Your task to perform on an android device: remove spam from my inbox in the gmail app Image 0: 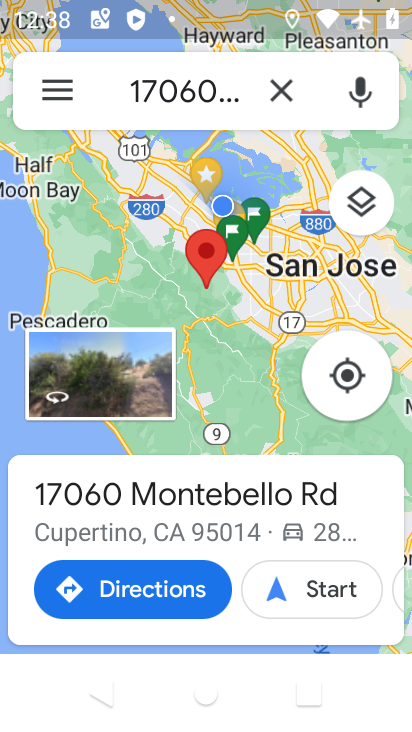
Step 0: press home button
Your task to perform on an android device: remove spam from my inbox in the gmail app Image 1: 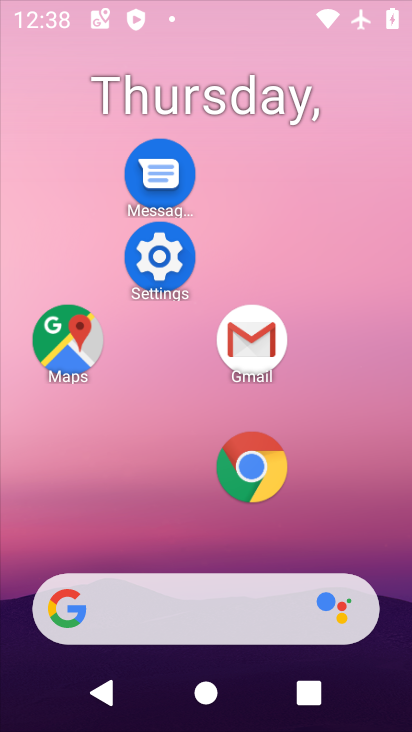
Step 1: drag from (195, 538) to (278, 207)
Your task to perform on an android device: remove spam from my inbox in the gmail app Image 2: 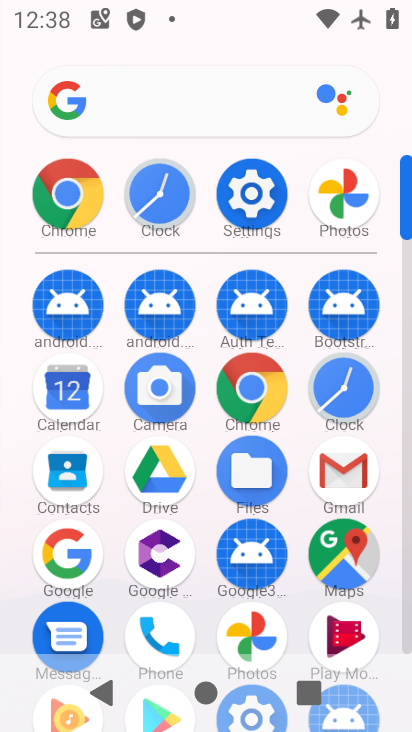
Step 2: drag from (203, 559) to (253, 181)
Your task to perform on an android device: remove spam from my inbox in the gmail app Image 3: 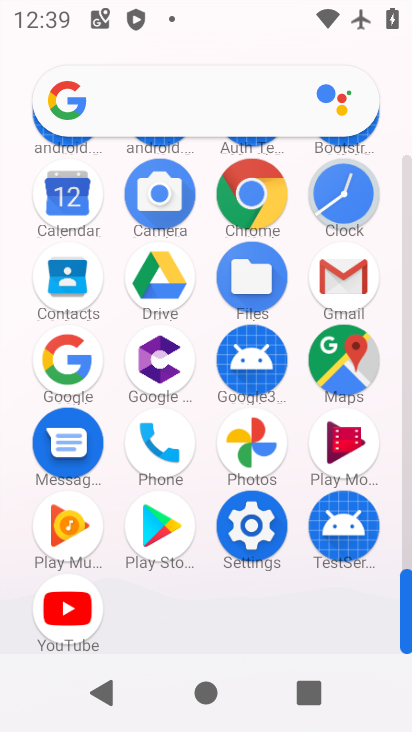
Step 3: click (351, 404)
Your task to perform on an android device: remove spam from my inbox in the gmail app Image 4: 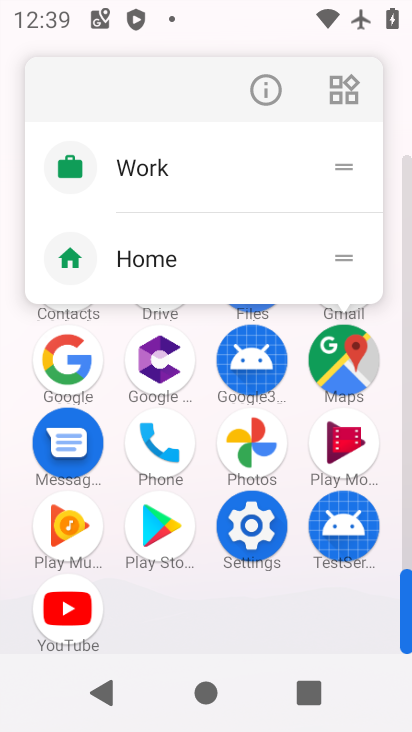
Step 4: click (282, 88)
Your task to perform on an android device: remove spam from my inbox in the gmail app Image 5: 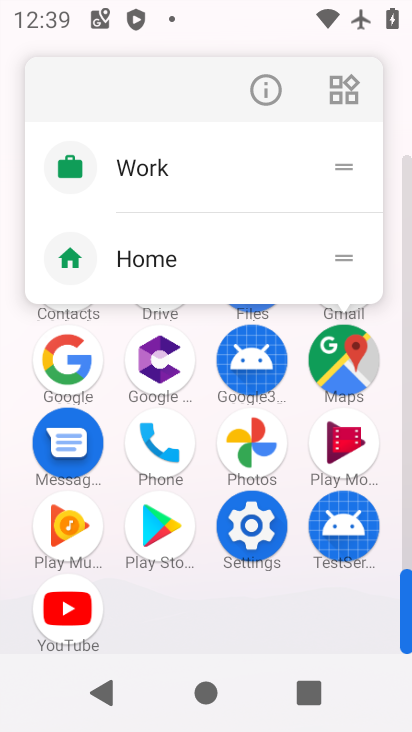
Step 5: click (282, 88)
Your task to perform on an android device: remove spam from my inbox in the gmail app Image 6: 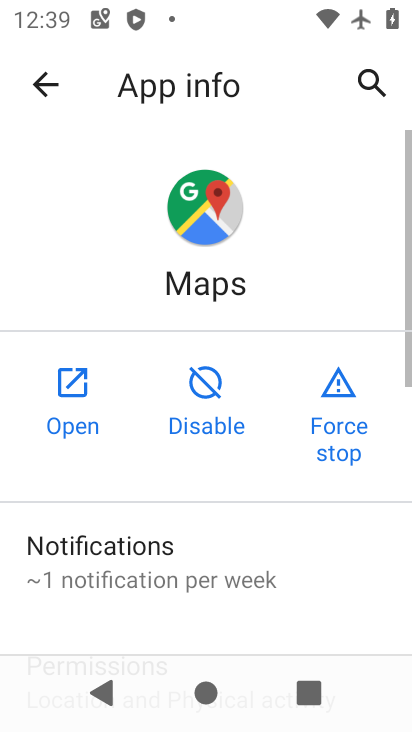
Step 6: click (67, 388)
Your task to perform on an android device: remove spam from my inbox in the gmail app Image 7: 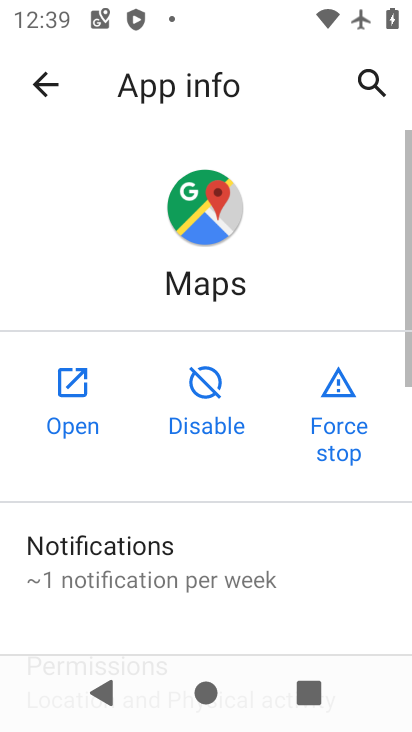
Step 7: click (67, 388)
Your task to perform on an android device: remove spam from my inbox in the gmail app Image 8: 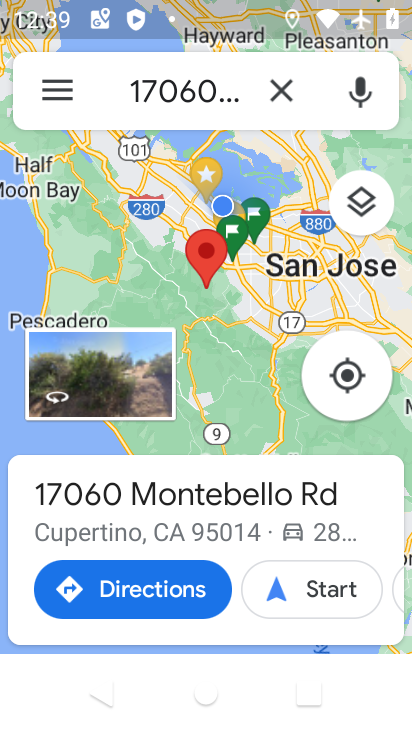
Step 8: drag from (224, 452) to (308, 166)
Your task to perform on an android device: remove spam from my inbox in the gmail app Image 9: 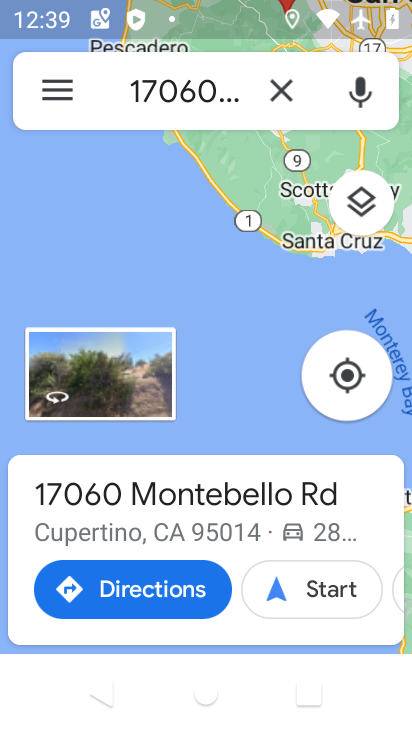
Step 9: press home button
Your task to perform on an android device: remove spam from my inbox in the gmail app Image 10: 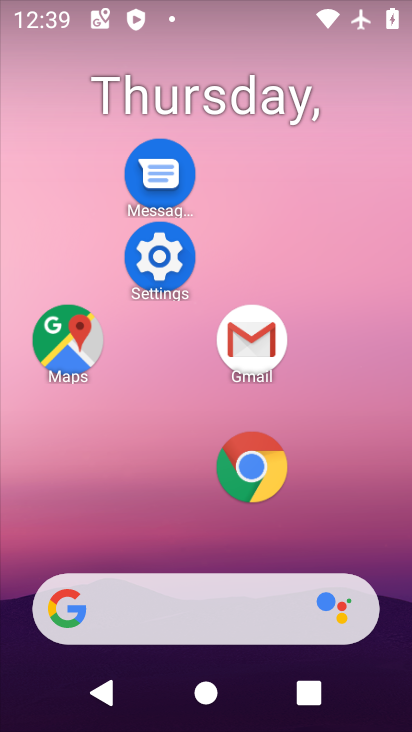
Step 10: click (252, 363)
Your task to perform on an android device: remove spam from my inbox in the gmail app Image 11: 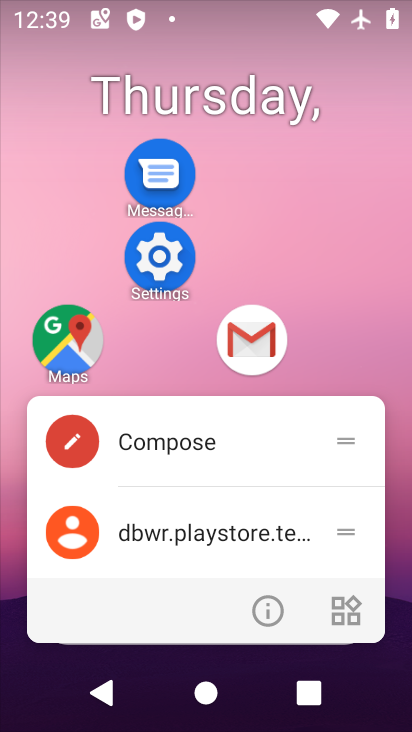
Step 11: click (206, 541)
Your task to perform on an android device: remove spam from my inbox in the gmail app Image 12: 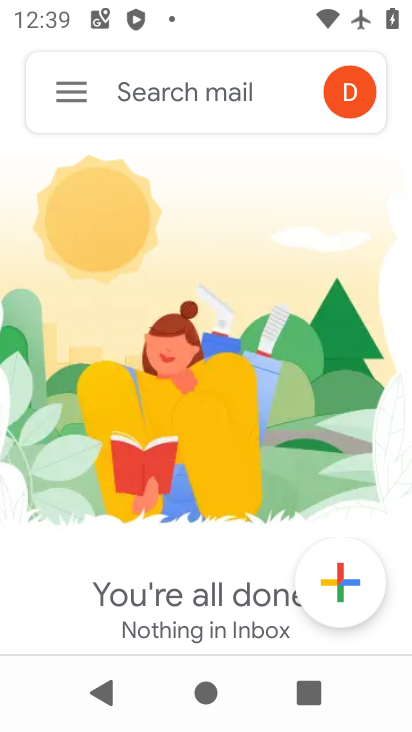
Step 12: click (61, 110)
Your task to perform on an android device: remove spam from my inbox in the gmail app Image 13: 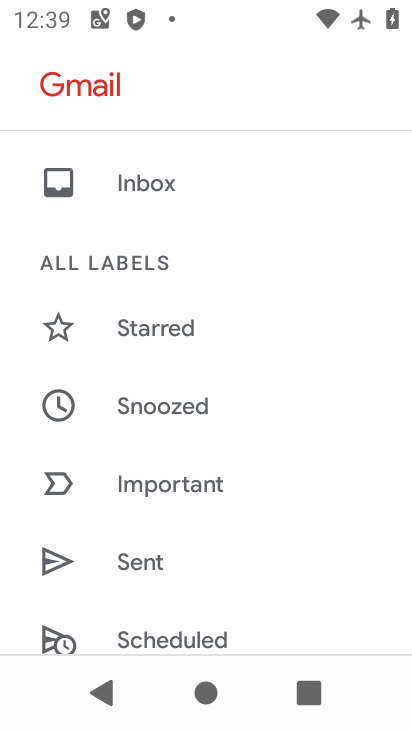
Step 13: drag from (196, 554) to (221, 135)
Your task to perform on an android device: remove spam from my inbox in the gmail app Image 14: 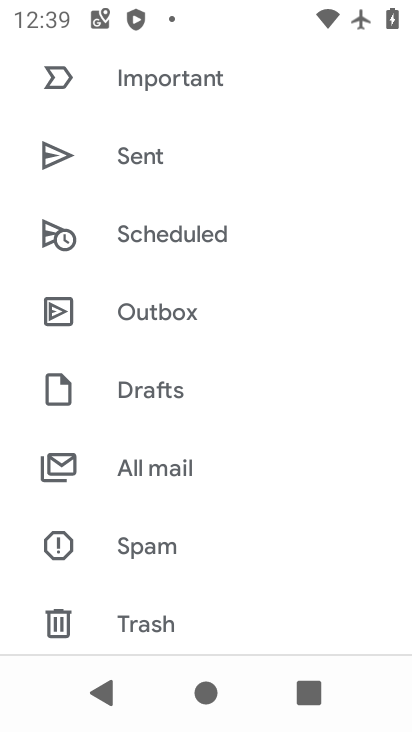
Step 14: click (151, 556)
Your task to perform on an android device: remove spam from my inbox in the gmail app Image 15: 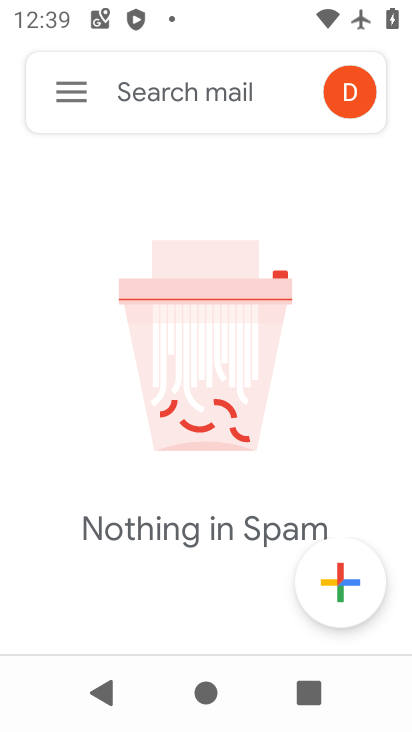
Step 15: task complete